Your task to perform on an android device: Check the news Image 0: 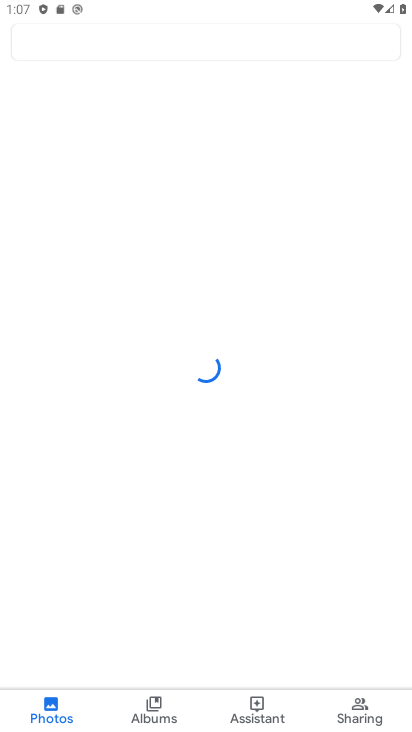
Step 0: press home button
Your task to perform on an android device: Check the news Image 1: 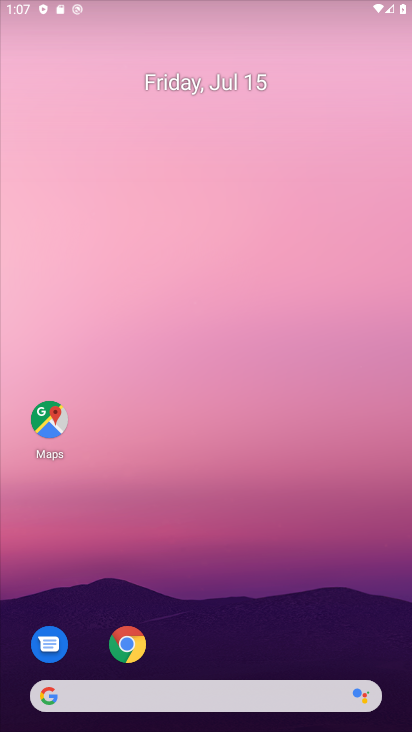
Step 1: drag from (376, 657) to (283, 26)
Your task to perform on an android device: Check the news Image 2: 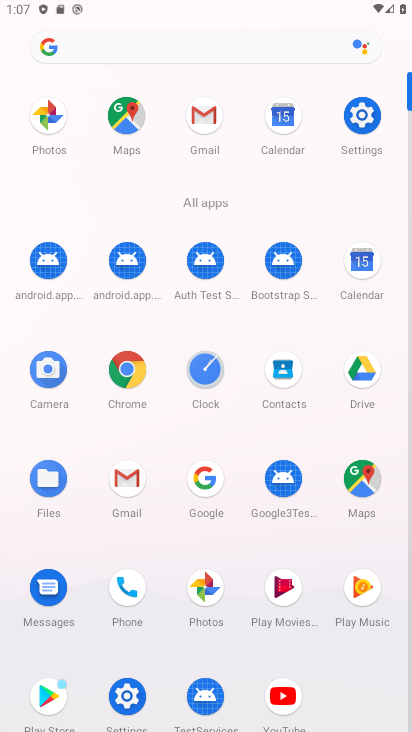
Step 2: click (187, 495)
Your task to perform on an android device: Check the news Image 3: 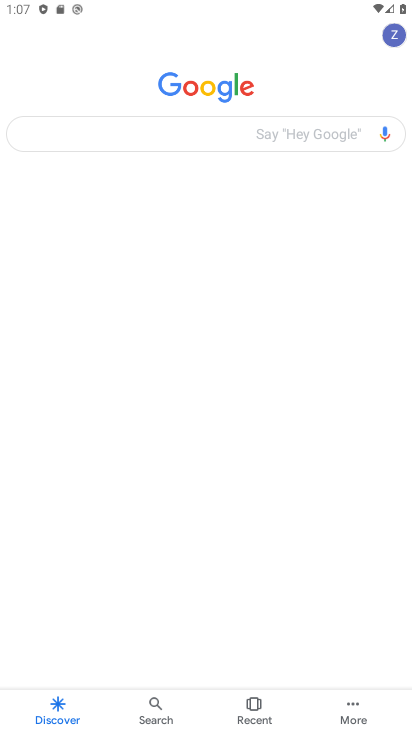
Step 3: click (176, 135)
Your task to perform on an android device: Check the news Image 4: 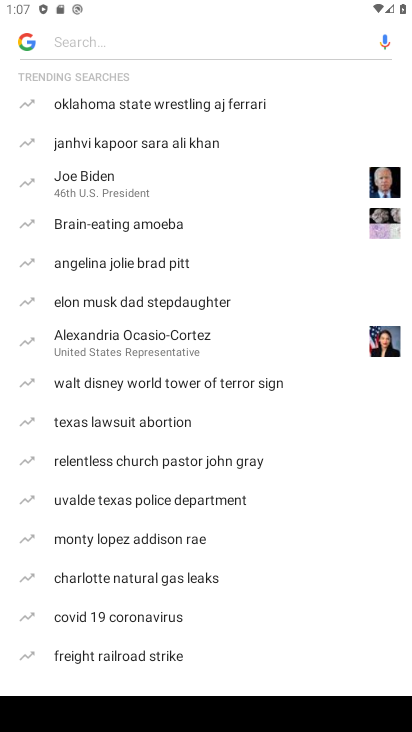
Step 4: type "Check the news"
Your task to perform on an android device: Check the news Image 5: 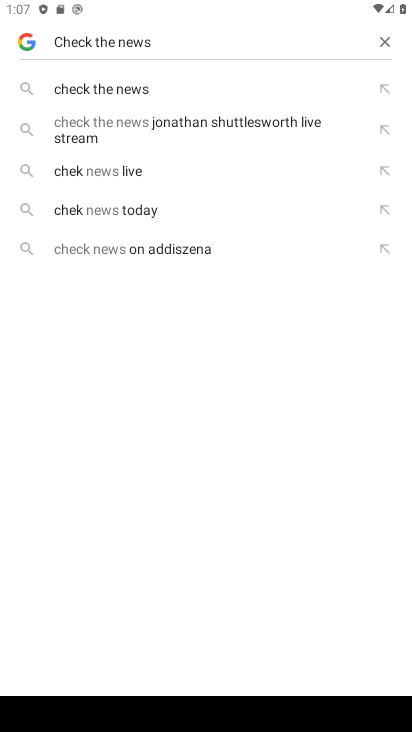
Step 5: click (127, 95)
Your task to perform on an android device: Check the news Image 6: 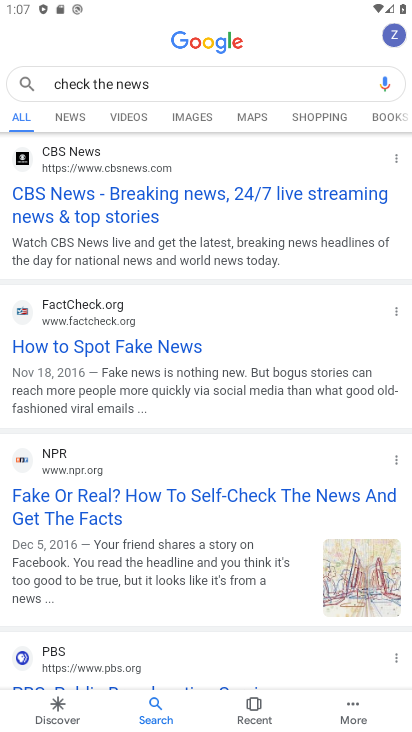
Step 6: task complete